Your task to perform on an android device: Go to Google maps Image 0: 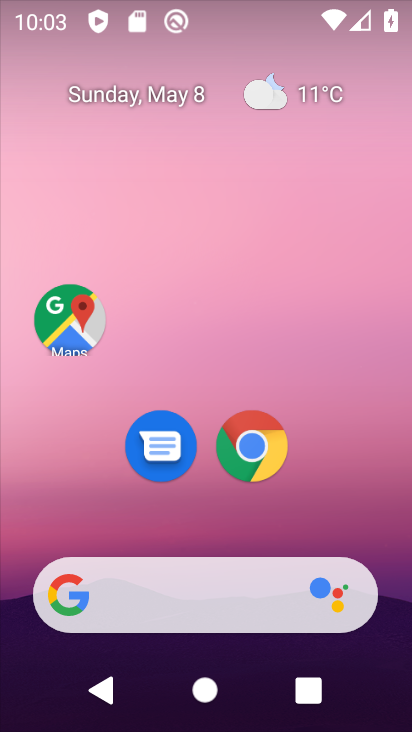
Step 0: click (72, 322)
Your task to perform on an android device: Go to Google maps Image 1: 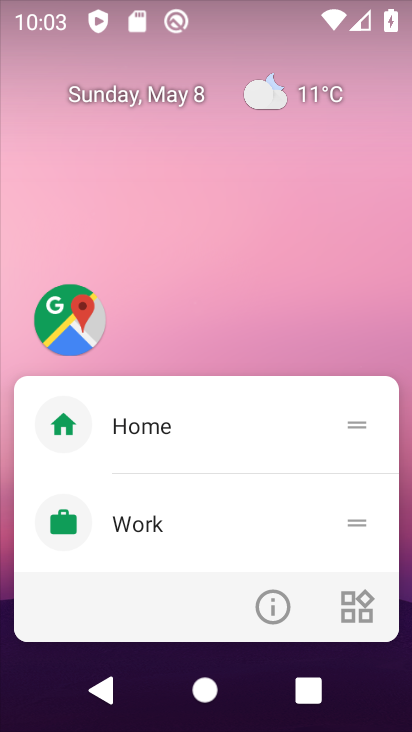
Step 1: click (71, 320)
Your task to perform on an android device: Go to Google maps Image 2: 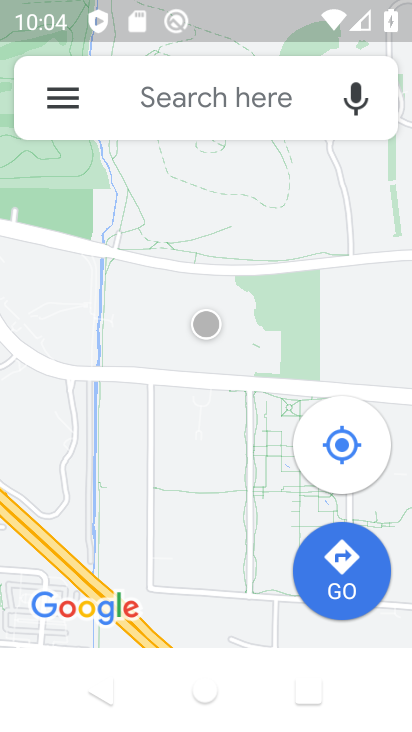
Step 2: task complete